Your task to perform on an android device: Go to eBay Image 0: 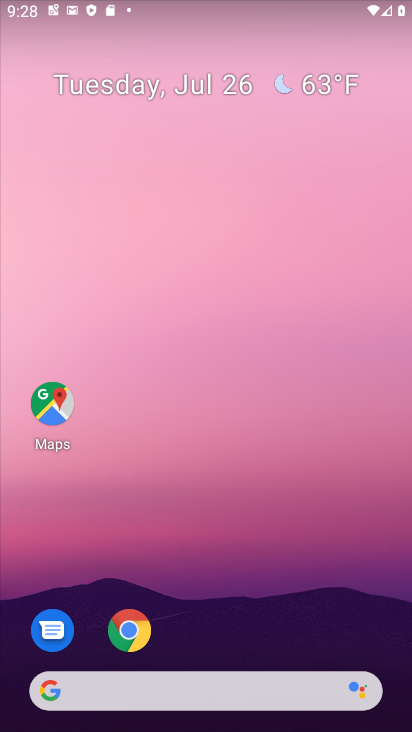
Step 0: click (127, 624)
Your task to perform on an android device: Go to eBay Image 1: 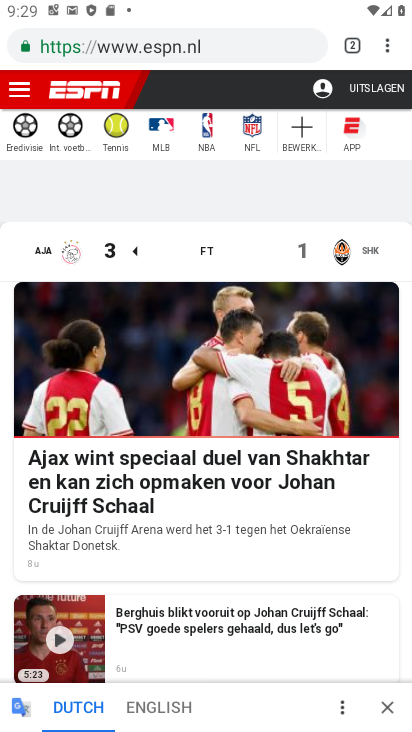
Step 1: click (356, 43)
Your task to perform on an android device: Go to eBay Image 2: 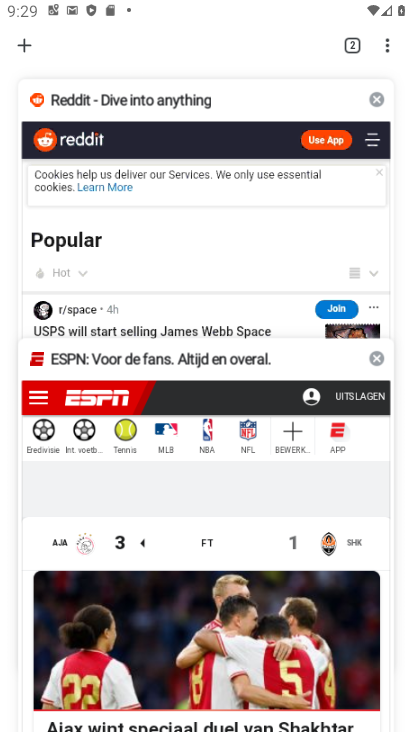
Step 2: click (18, 42)
Your task to perform on an android device: Go to eBay Image 3: 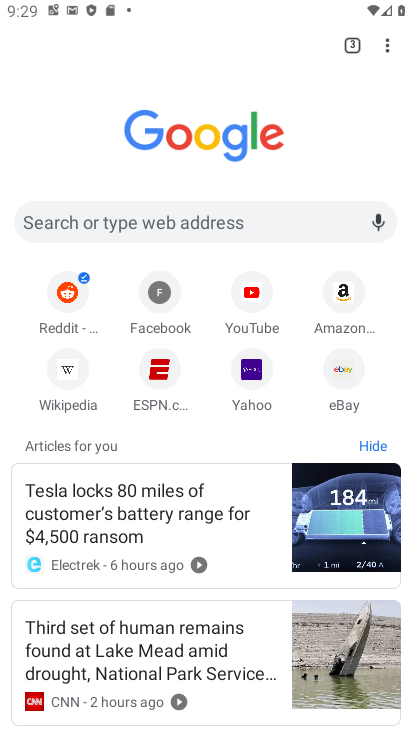
Step 3: click (344, 365)
Your task to perform on an android device: Go to eBay Image 4: 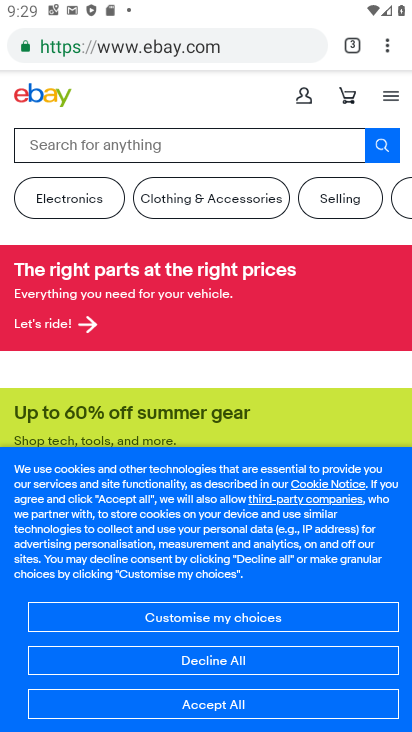
Step 4: click (208, 705)
Your task to perform on an android device: Go to eBay Image 5: 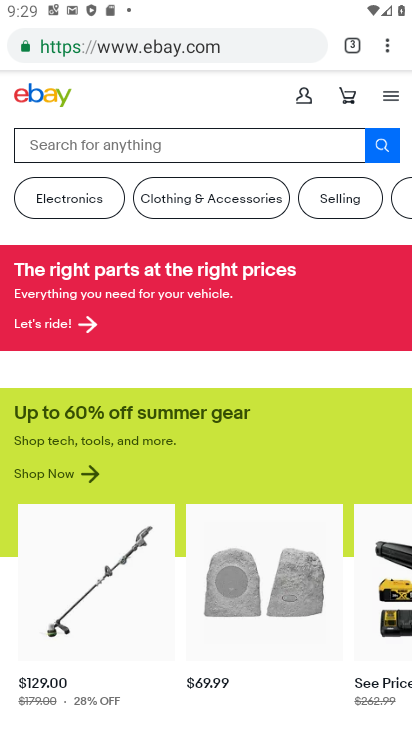
Step 5: task complete